Your task to perform on an android device: empty trash in google photos Image 0: 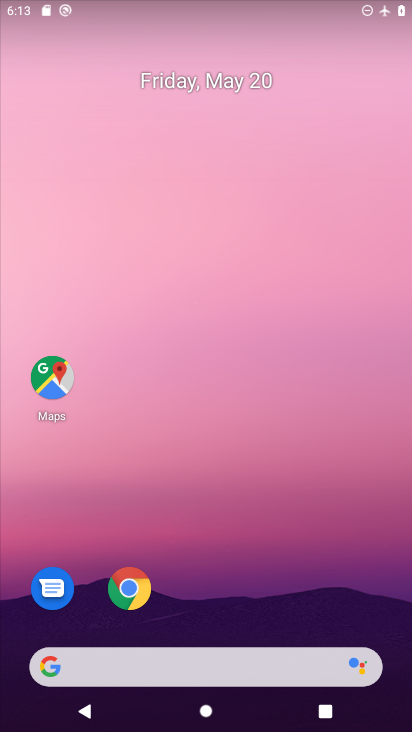
Step 0: drag from (232, 595) to (243, 213)
Your task to perform on an android device: empty trash in google photos Image 1: 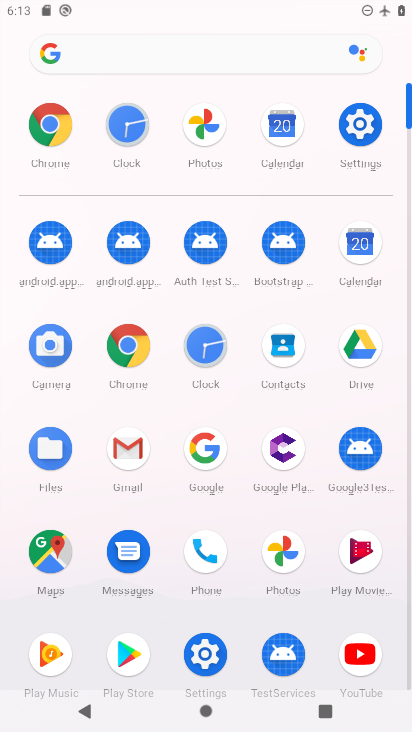
Step 1: click (282, 562)
Your task to perform on an android device: empty trash in google photos Image 2: 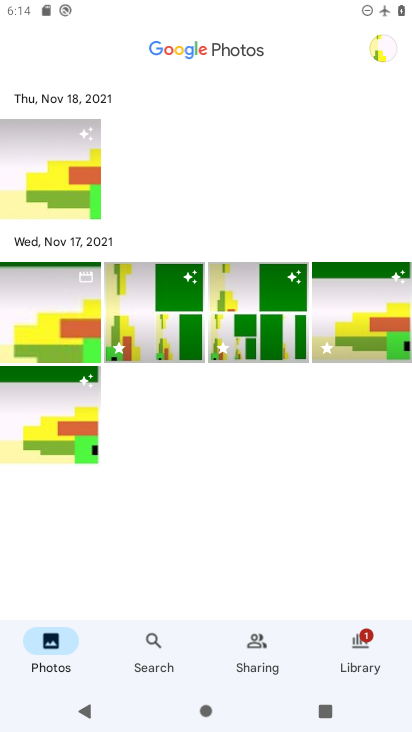
Step 2: click (354, 654)
Your task to perform on an android device: empty trash in google photos Image 3: 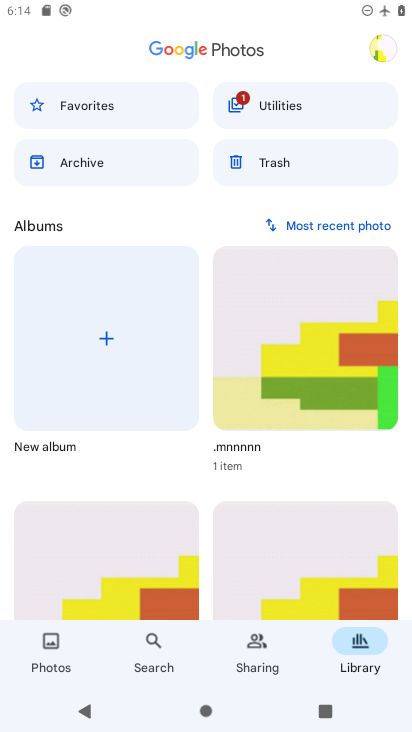
Step 3: click (259, 156)
Your task to perform on an android device: empty trash in google photos Image 4: 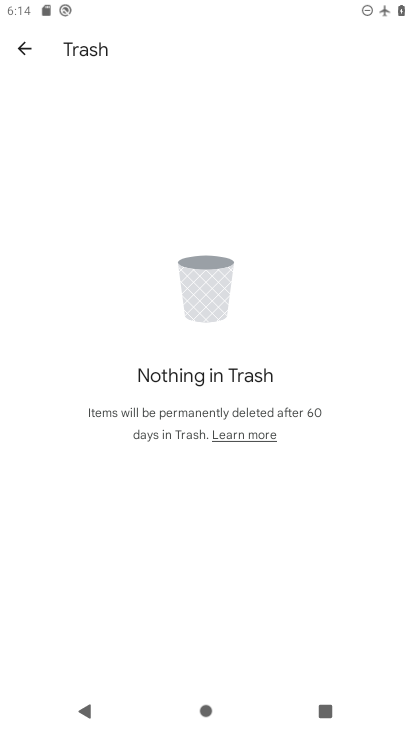
Step 4: task complete